Your task to perform on an android device: Is it going to rain tomorrow? Image 0: 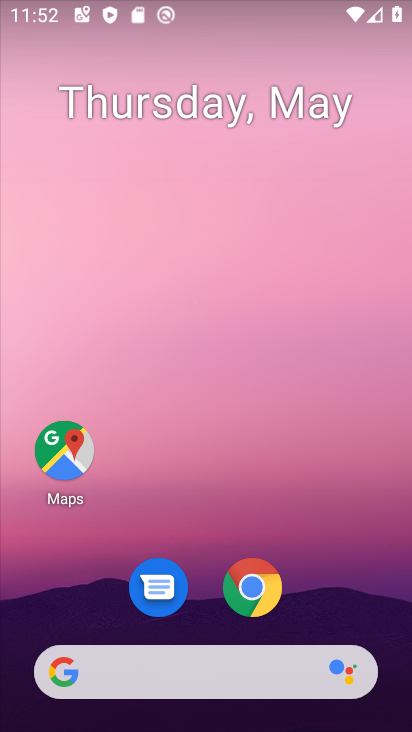
Step 0: click (153, 675)
Your task to perform on an android device: Is it going to rain tomorrow? Image 1: 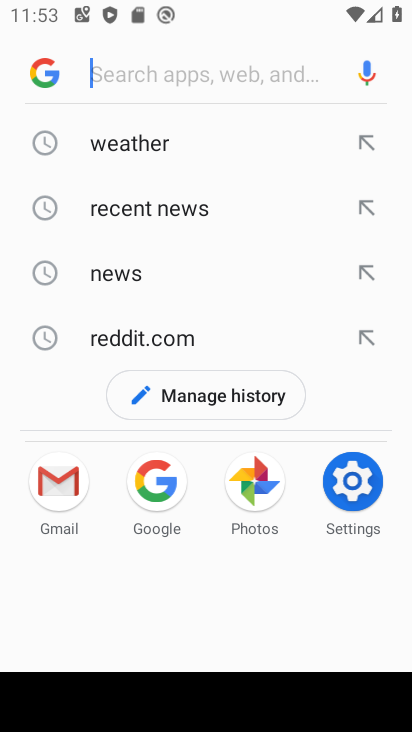
Step 1: type "is it going to rain tomorrow"
Your task to perform on an android device: Is it going to rain tomorrow? Image 2: 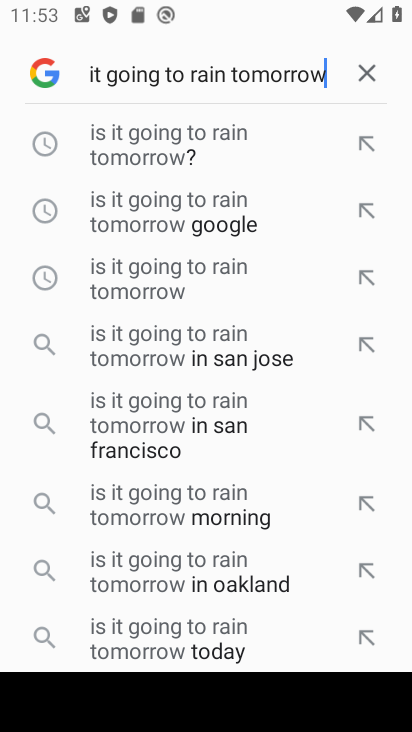
Step 2: click (224, 140)
Your task to perform on an android device: Is it going to rain tomorrow? Image 3: 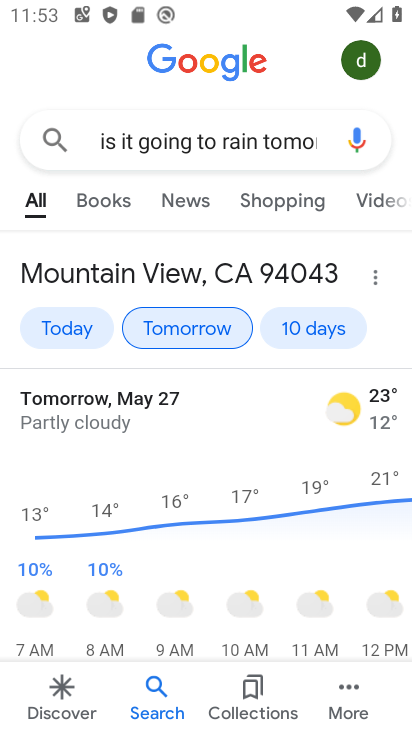
Step 3: task complete